Your task to perform on an android device: Open the phone app and click the voicemail tab. Image 0: 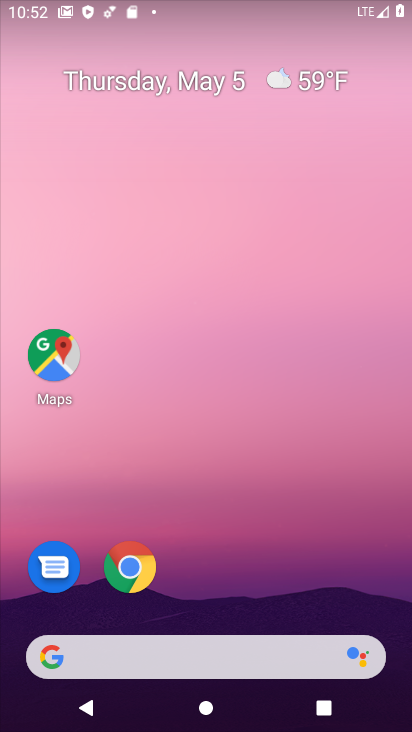
Step 0: drag from (238, 477) to (326, 45)
Your task to perform on an android device: Open the phone app and click the voicemail tab. Image 1: 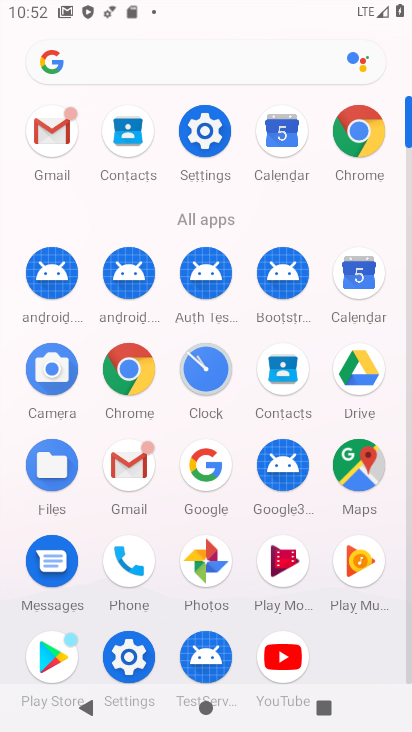
Step 1: click (124, 565)
Your task to perform on an android device: Open the phone app and click the voicemail tab. Image 2: 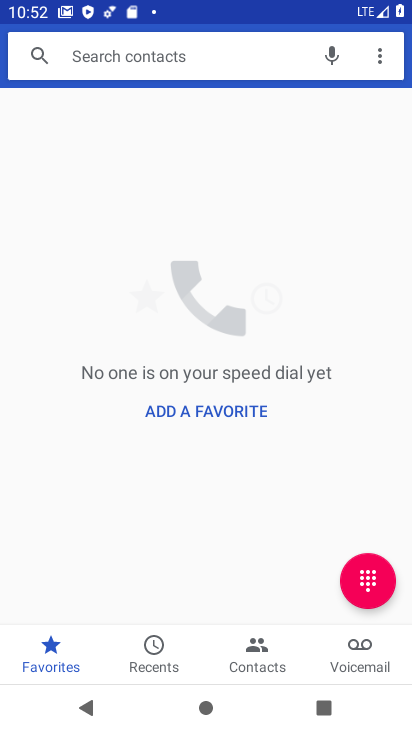
Step 2: click (352, 656)
Your task to perform on an android device: Open the phone app and click the voicemail tab. Image 3: 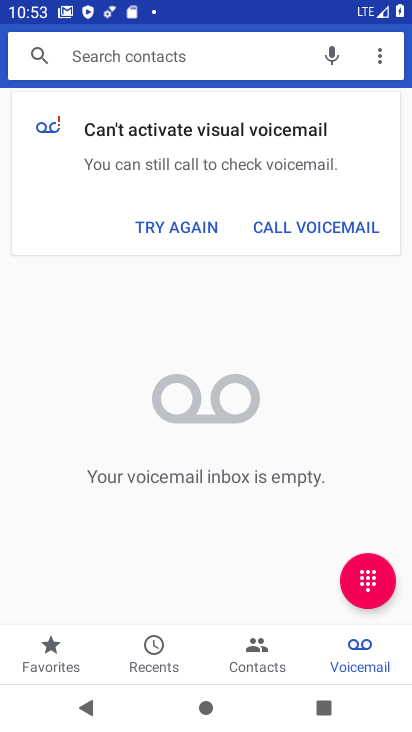
Step 3: task complete